Your task to perform on an android device: empty trash in google photos Image 0: 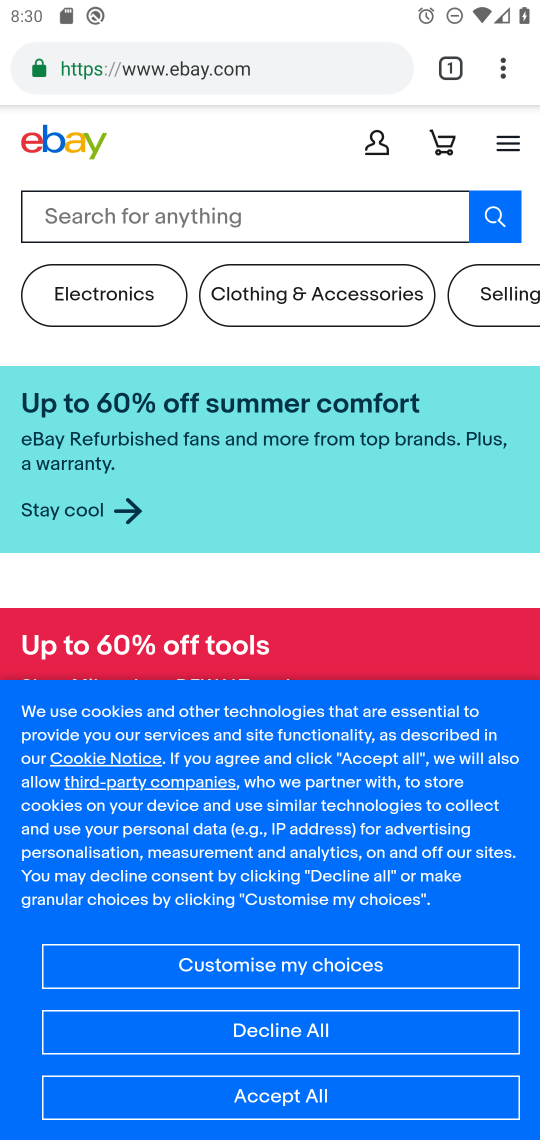
Step 0: press home button
Your task to perform on an android device: empty trash in google photos Image 1: 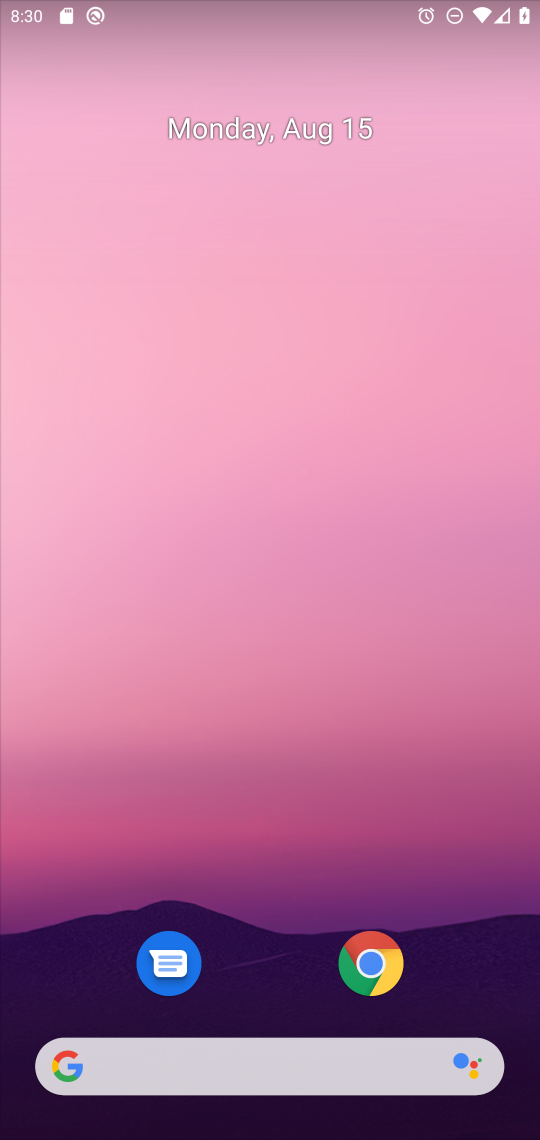
Step 1: drag from (259, 1018) to (248, 97)
Your task to perform on an android device: empty trash in google photos Image 2: 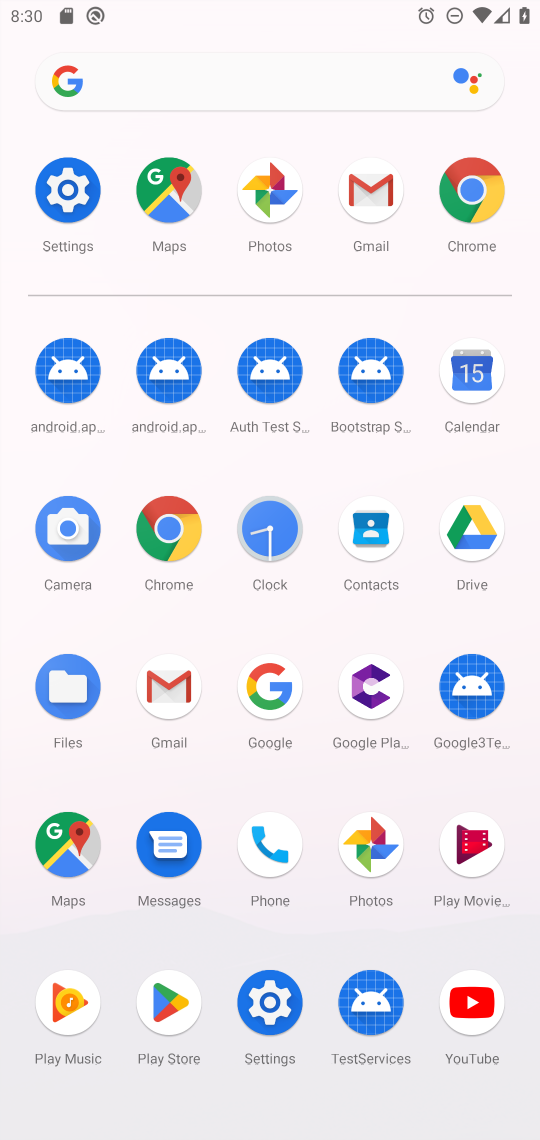
Step 2: click (272, 179)
Your task to perform on an android device: empty trash in google photos Image 3: 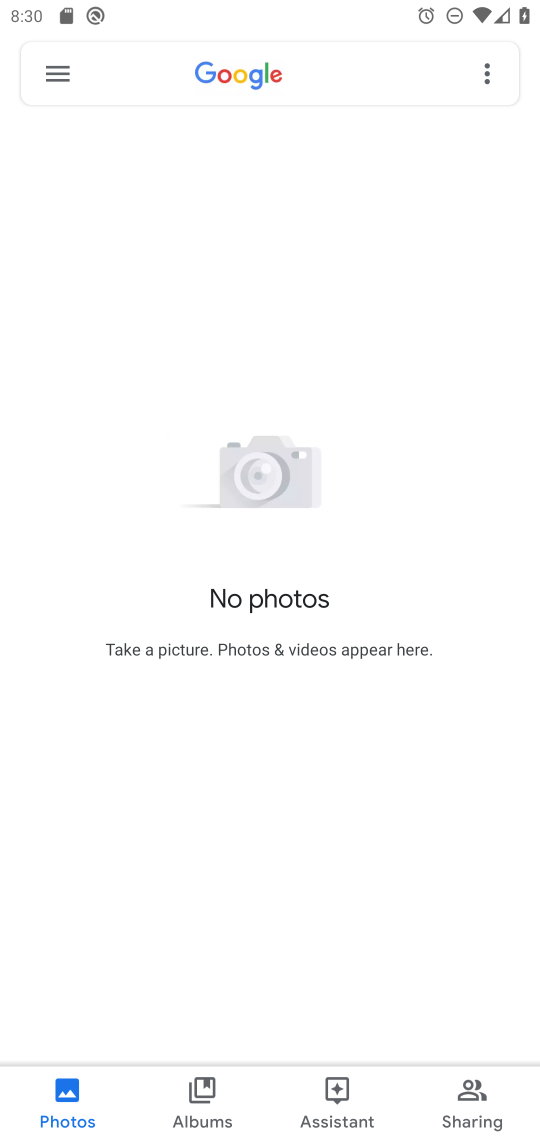
Step 3: click (52, 83)
Your task to perform on an android device: empty trash in google photos Image 4: 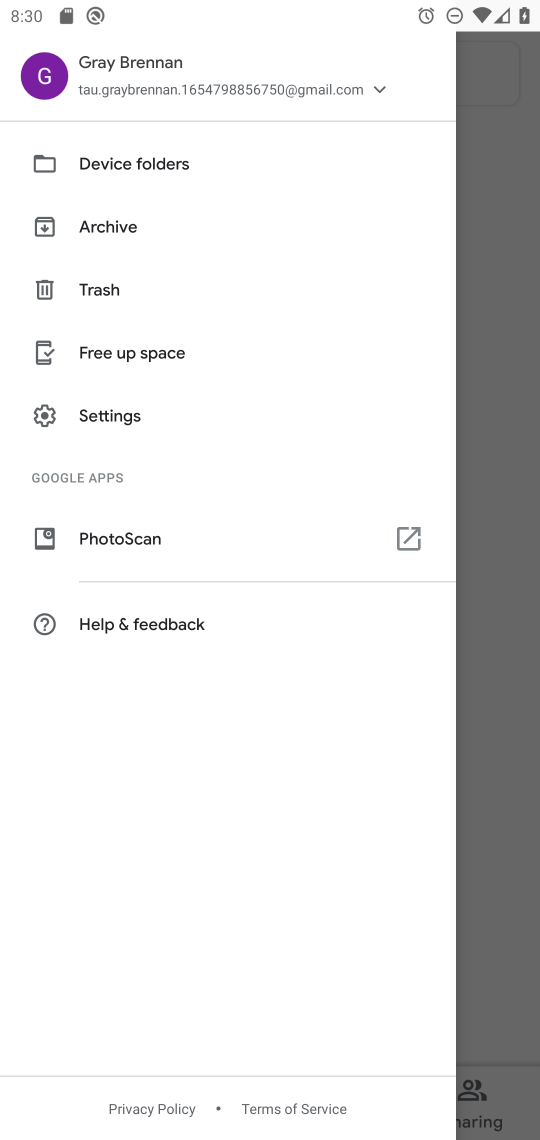
Step 4: click (76, 296)
Your task to perform on an android device: empty trash in google photos Image 5: 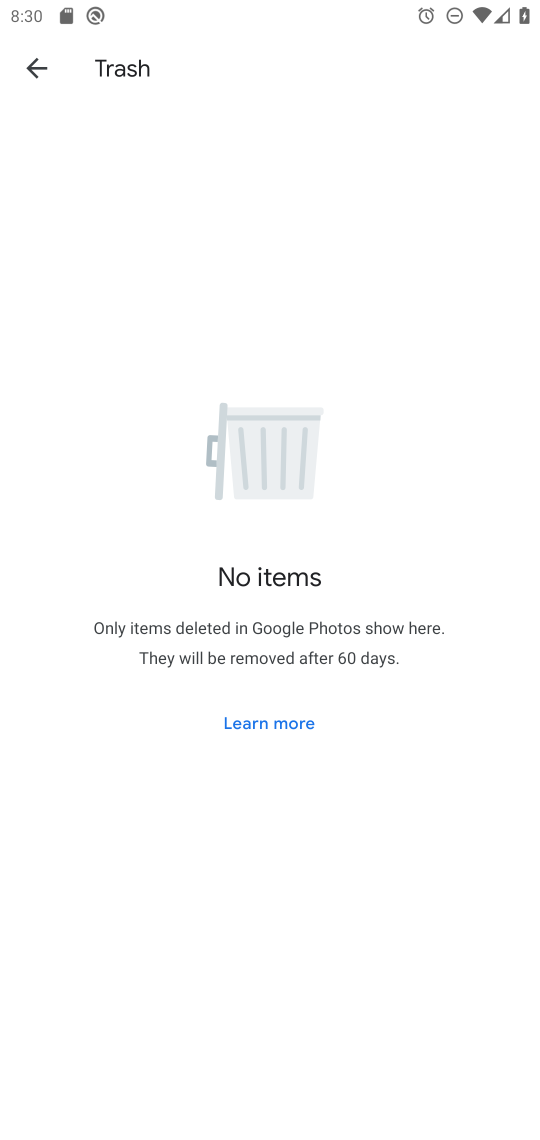
Step 5: task complete